Your task to perform on an android device: turn on location history Image 0: 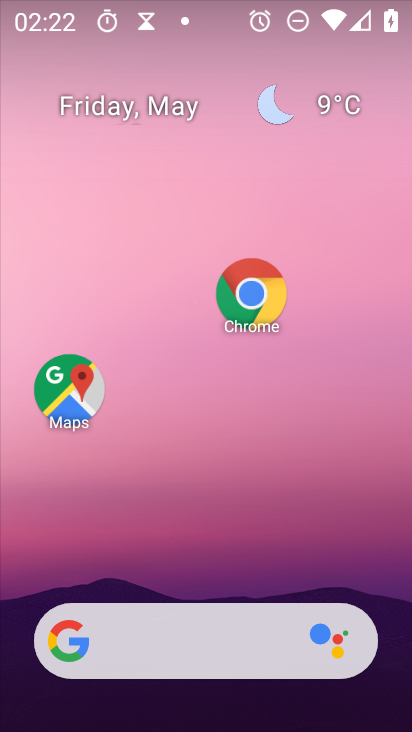
Step 0: click (77, 413)
Your task to perform on an android device: turn on location history Image 1: 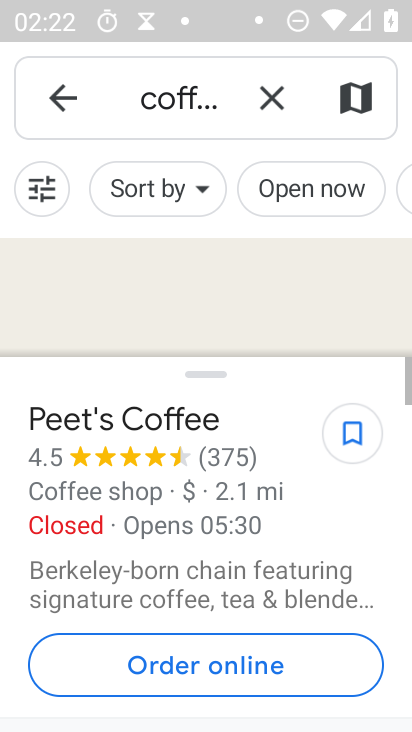
Step 1: click (66, 98)
Your task to perform on an android device: turn on location history Image 2: 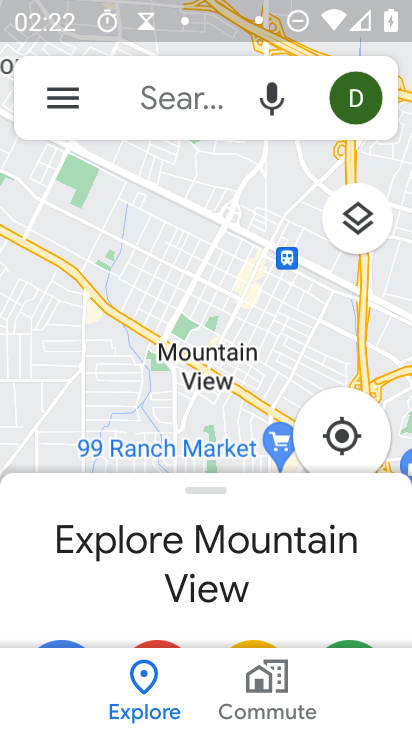
Step 2: click (57, 103)
Your task to perform on an android device: turn on location history Image 3: 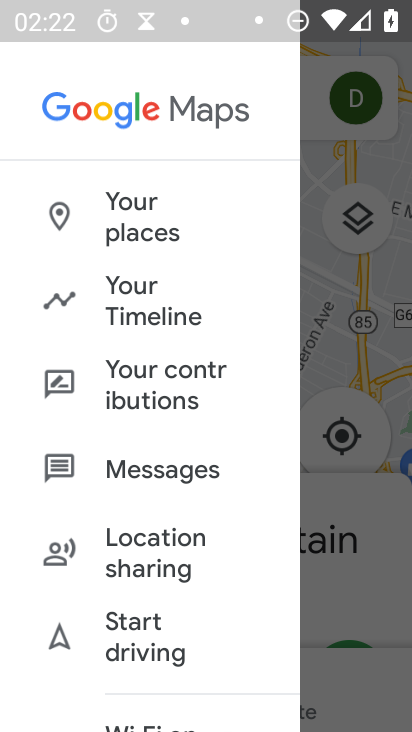
Step 3: click (122, 303)
Your task to perform on an android device: turn on location history Image 4: 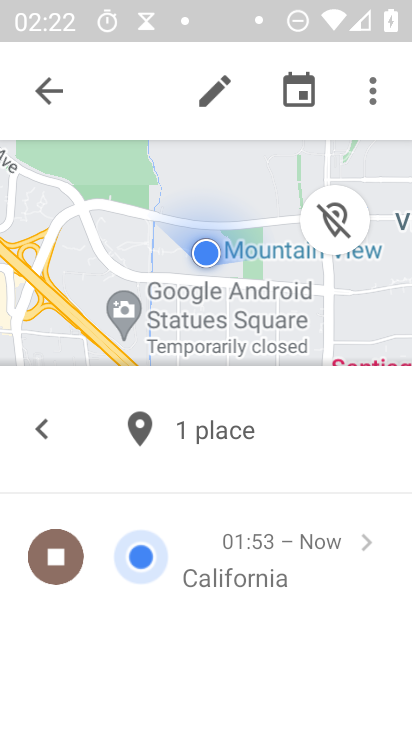
Step 4: click (374, 105)
Your task to perform on an android device: turn on location history Image 5: 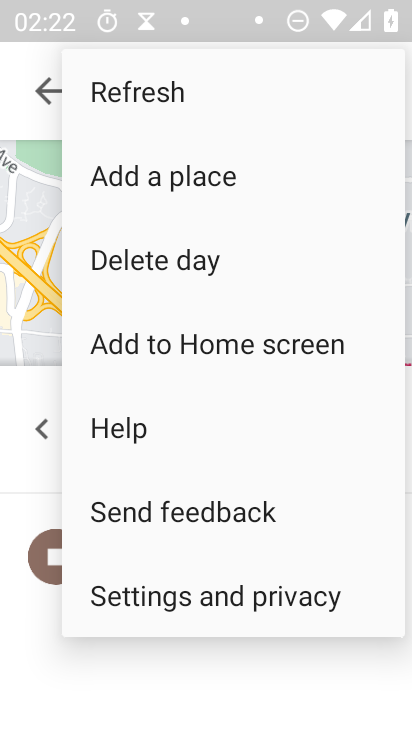
Step 5: click (237, 589)
Your task to perform on an android device: turn on location history Image 6: 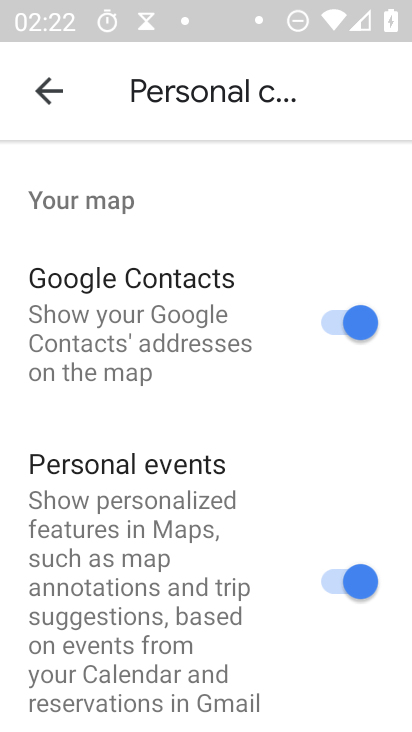
Step 6: drag from (182, 620) to (267, 209)
Your task to perform on an android device: turn on location history Image 7: 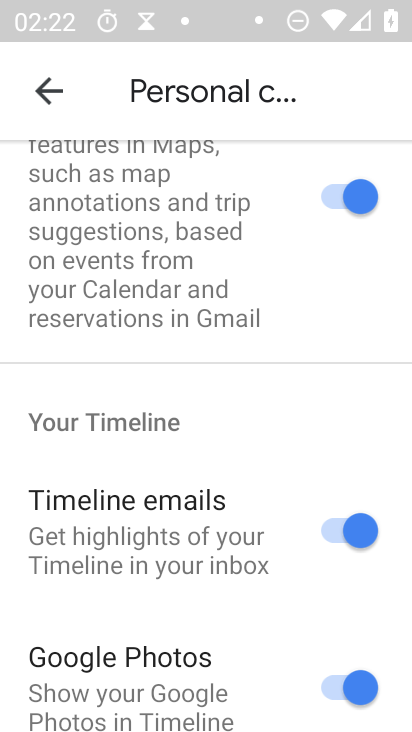
Step 7: drag from (226, 596) to (382, 67)
Your task to perform on an android device: turn on location history Image 8: 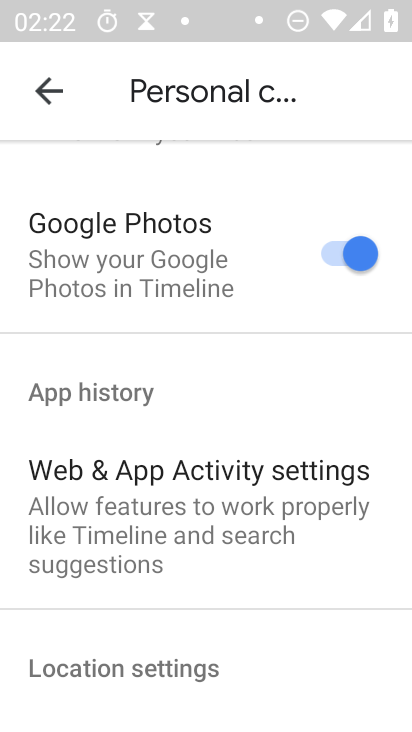
Step 8: drag from (247, 652) to (401, 101)
Your task to perform on an android device: turn on location history Image 9: 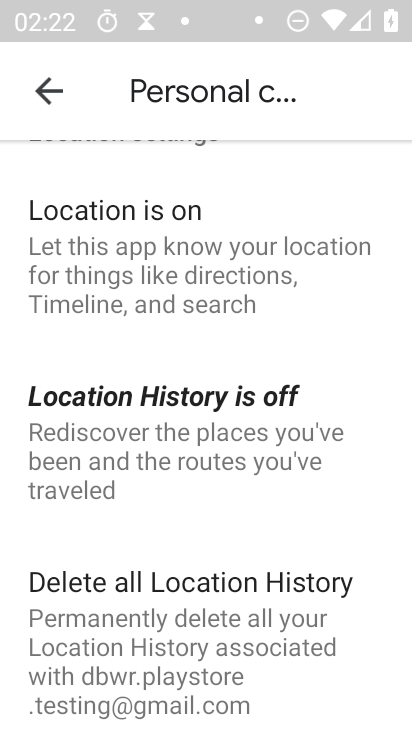
Step 9: click (236, 407)
Your task to perform on an android device: turn on location history Image 10: 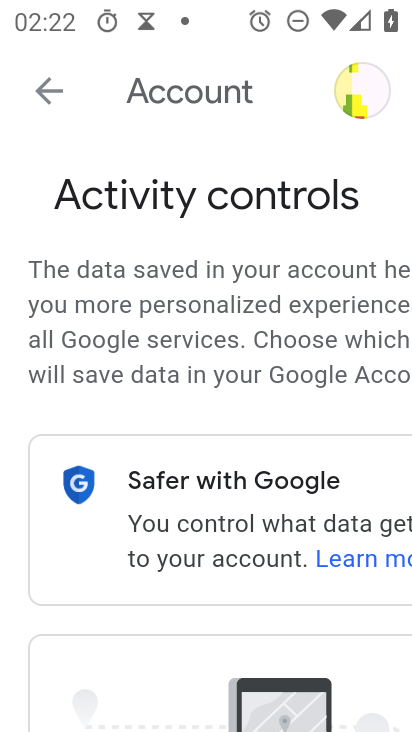
Step 10: drag from (220, 648) to (405, 151)
Your task to perform on an android device: turn on location history Image 11: 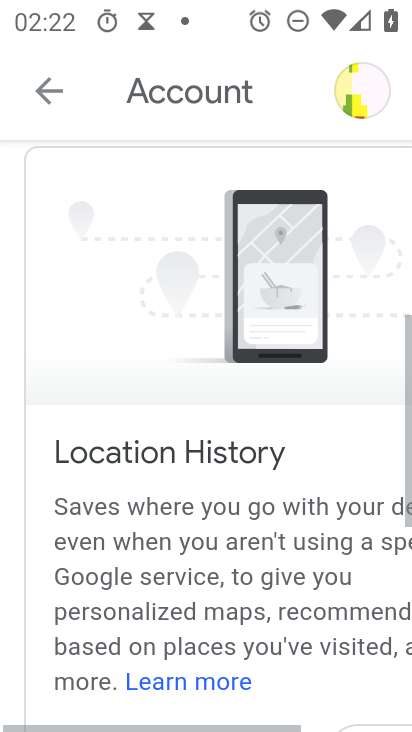
Step 11: drag from (278, 627) to (410, 110)
Your task to perform on an android device: turn on location history Image 12: 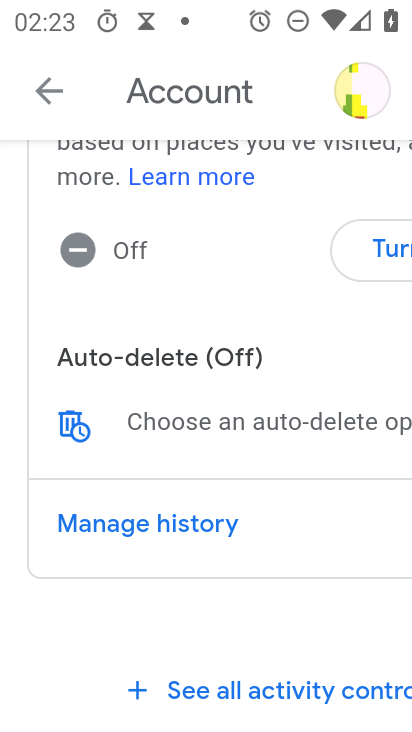
Step 12: click (394, 246)
Your task to perform on an android device: turn on location history Image 13: 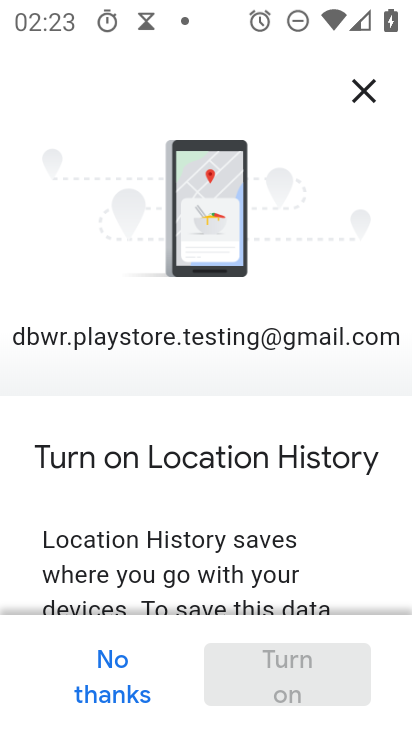
Step 13: drag from (272, 525) to (368, 65)
Your task to perform on an android device: turn on location history Image 14: 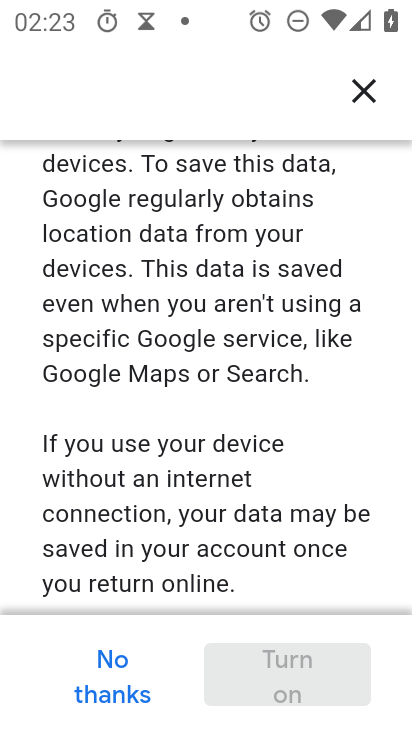
Step 14: drag from (347, 472) to (411, 62)
Your task to perform on an android device: turn on location history Image 15: 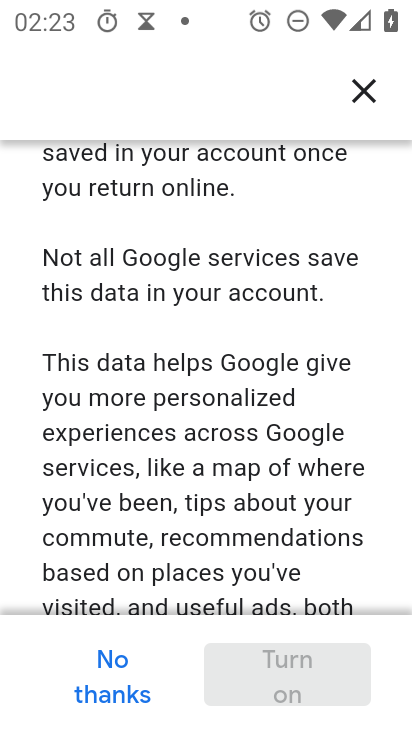
Step 15: drag from (317, 526) to (397, 69)
Your task to perform on an android device: turn on location history Image 16: 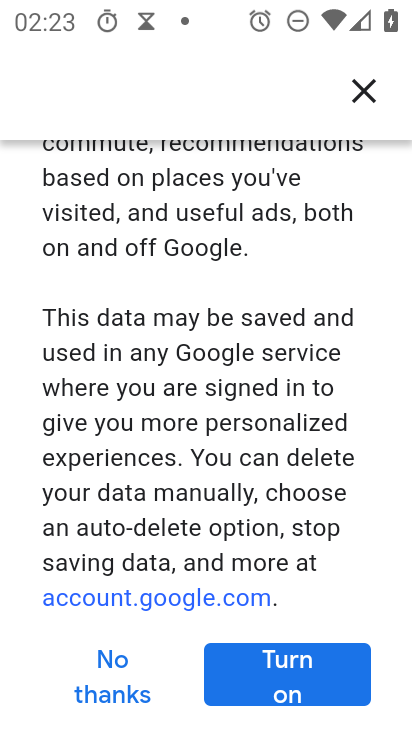
Step 16: click (295, 672)
Your task to perform on an android device: turn on location history Image 17: 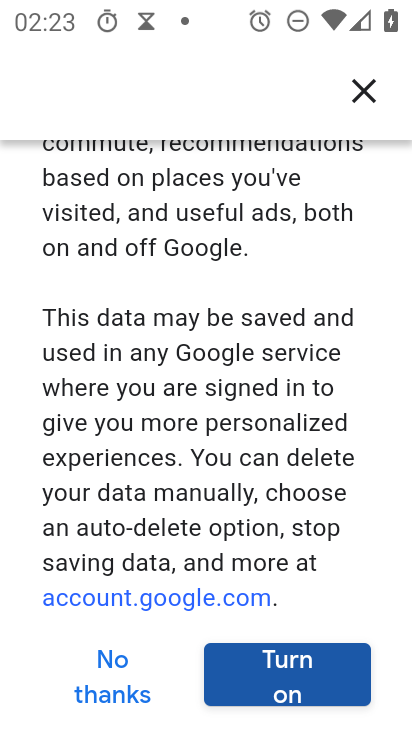
Step 17: click (293, 680)
Your task to perform on an android device: turn on location history Image 18: 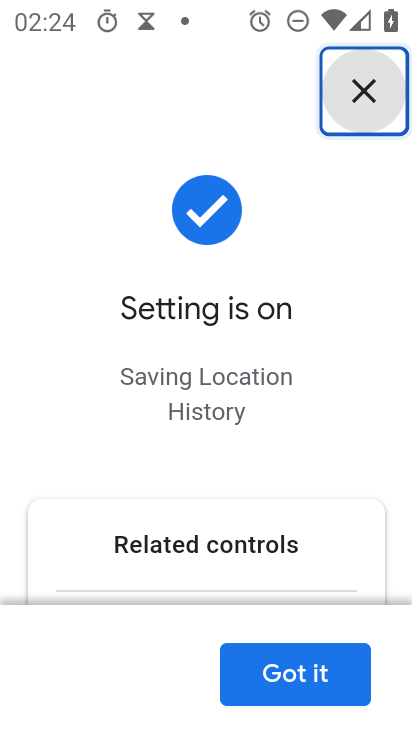
Step 18: task complete